Your task to perform on an android device: Go to ESPN.com Image 0: 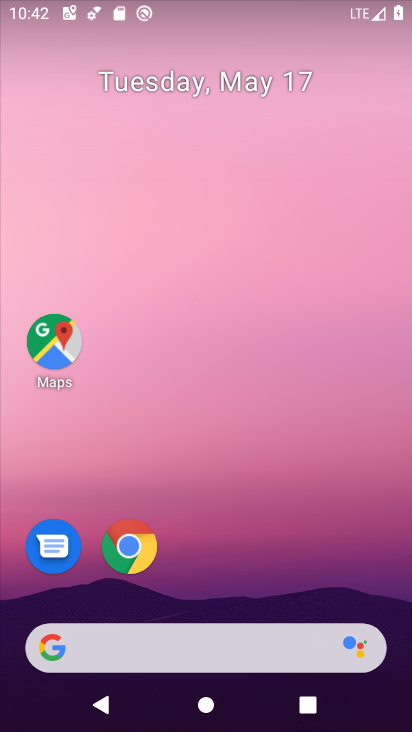
Step 0: click (138, 552)
Your task to perform on an android device: Go to ESPN.com Image 1: 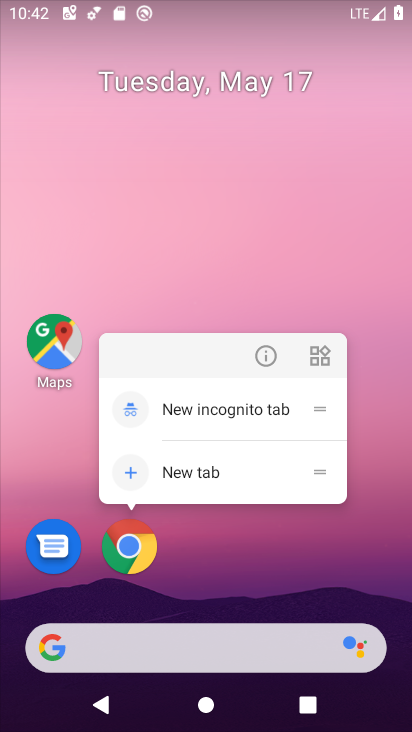
Step 1: click (143, 555)
Your task to perform on an android device: Go to ESPN.com Image 2: 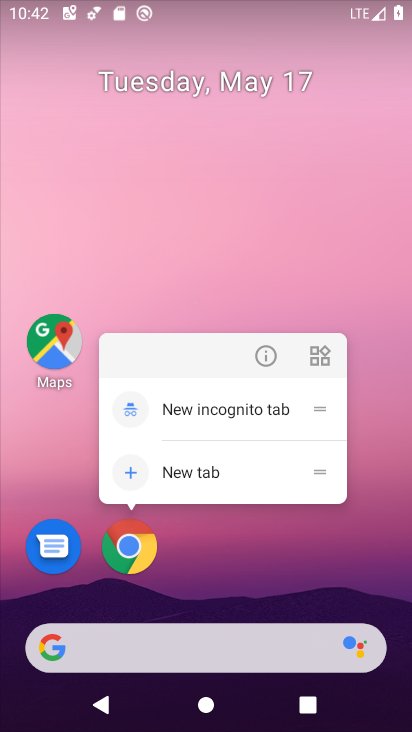
Step 2: click (144, 555)
Your task to perform on an android device: Go to ESPN.com Image 3: 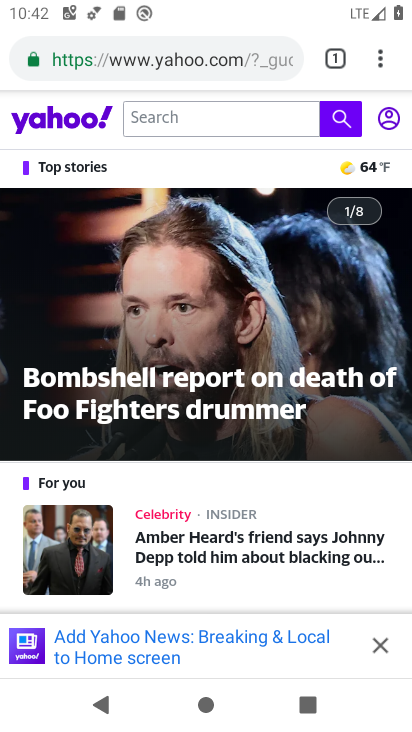
Step 3: click (190, 56)
Your task to perform on an android device: Go to ESPN.com Image 4: 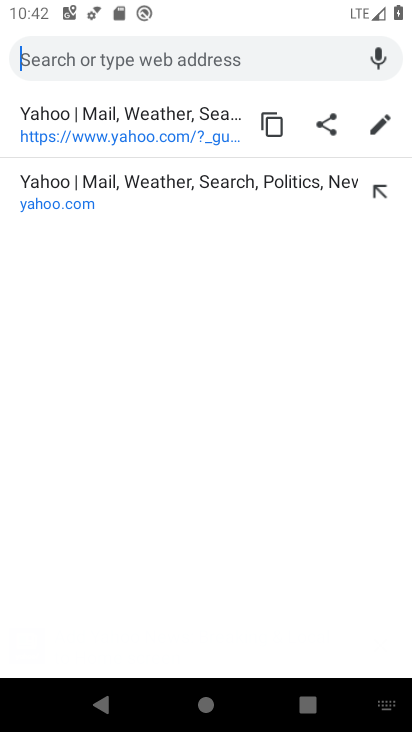
Step 4: type "ESPN.com"
Your task to perform on an android device: Go to ESPN.com Image 5: 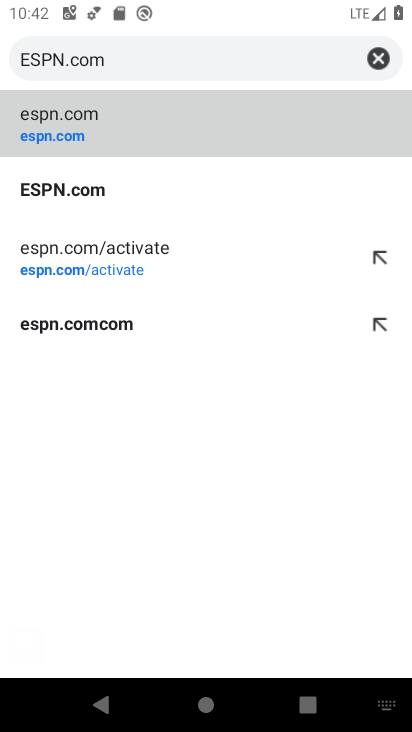
Step 5: click (82, 132)
Your task to perform on an android device: Go to ESPN.com Image 6: 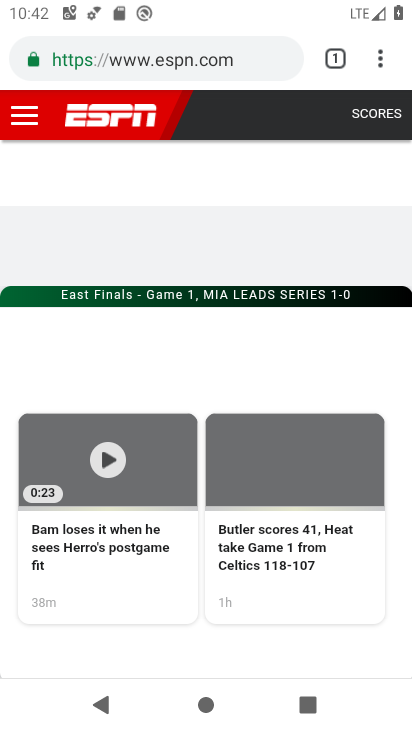
Step 6: task complete